Your task to perform on an android device: turn off improve location accuracy Image 0: 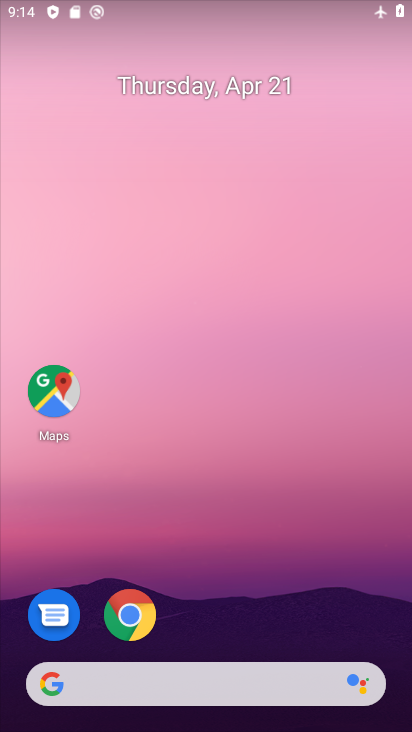
Step 0: drag from (207, 717) to (189, 152)
Your task to perform on an android device: turn off improve location accuracy Image 1: 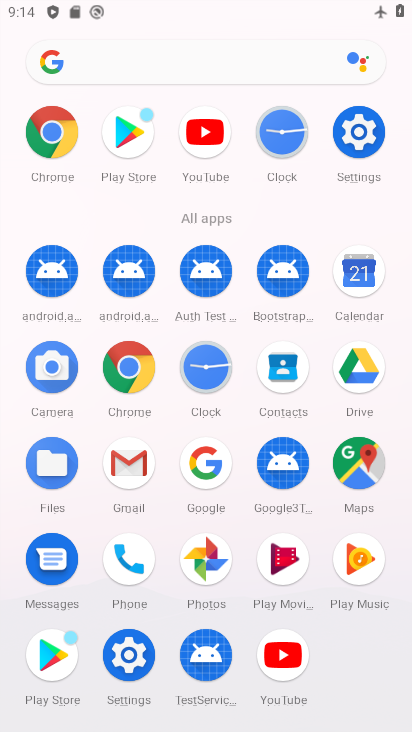
Step 1: click (356, 133)
Your task to perform on an android device: turn off improve location accuracy Image 2: 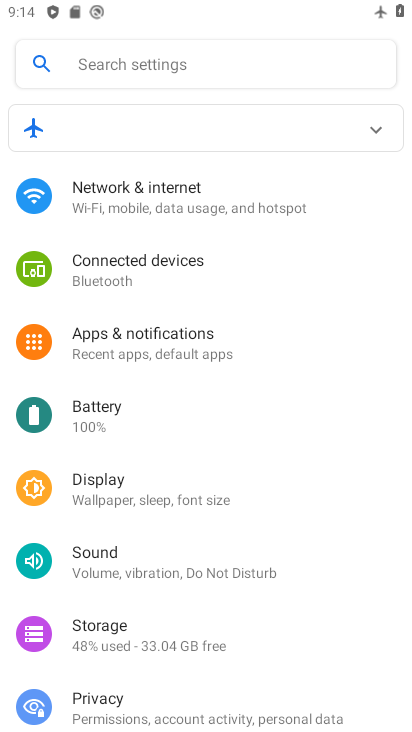
Step 2: drag from (152, 680) to (154, 257)
Your task to perform on an android device: turn off improve location accuracy Image 3: 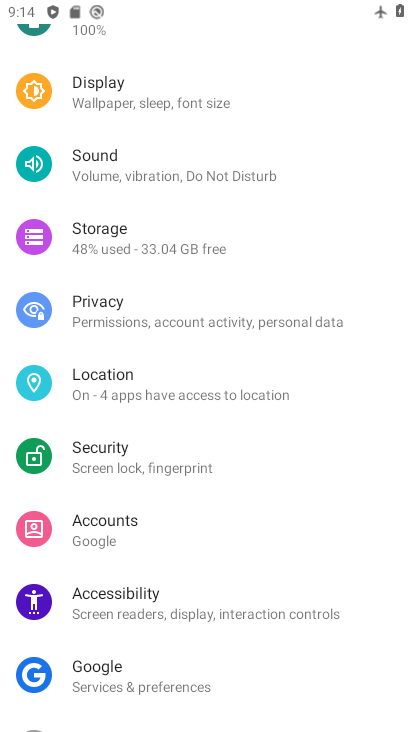
Step 3: click (103, 388)
Your task to perform on an android device: turn off improve location accuracy Image 4: 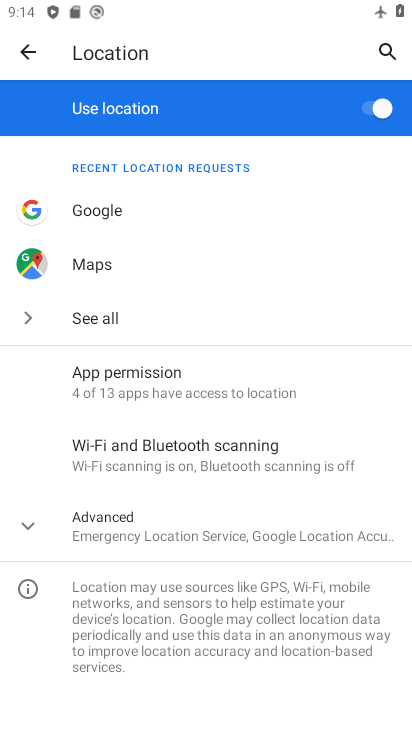
Step 4: click (106, 521)
Your task to perform on an android device: turn off improve location accuracy Image 5: 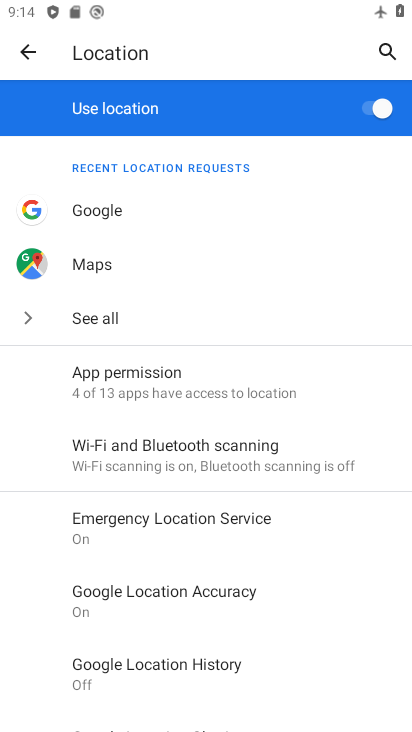
Step 5: drag from (164, 646) to (180, 429)
Your task to perform on an android device: turn off improve location accuracy Image 6: 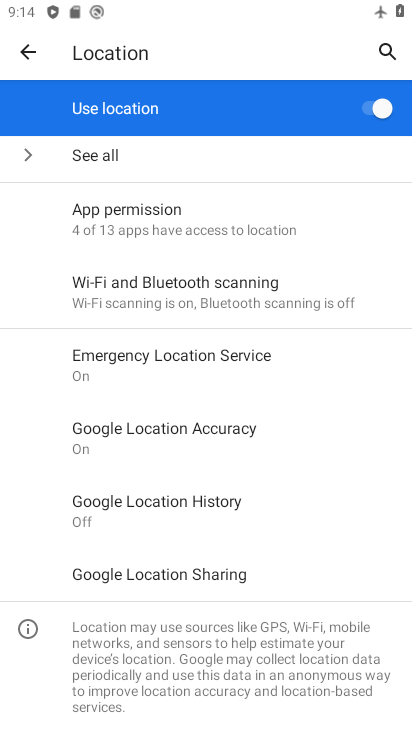
Step 6: click (131, 431)
Your task to perform on an android device: turn off improve location accuracy Image 7: 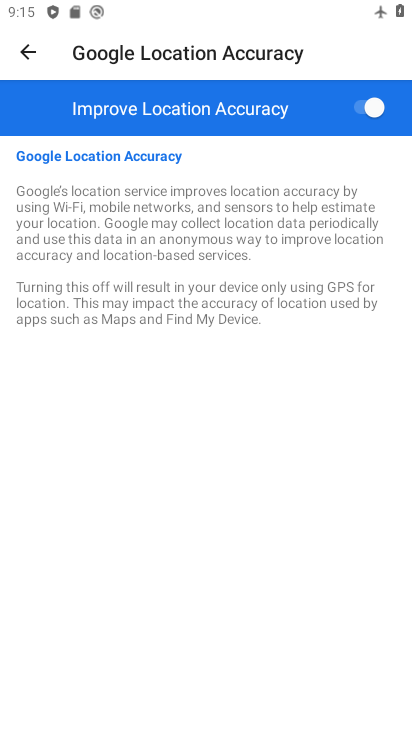
Step 7: click (363, 108)
Your task to perform on an android device: turn off improve location accuracy Image 8: 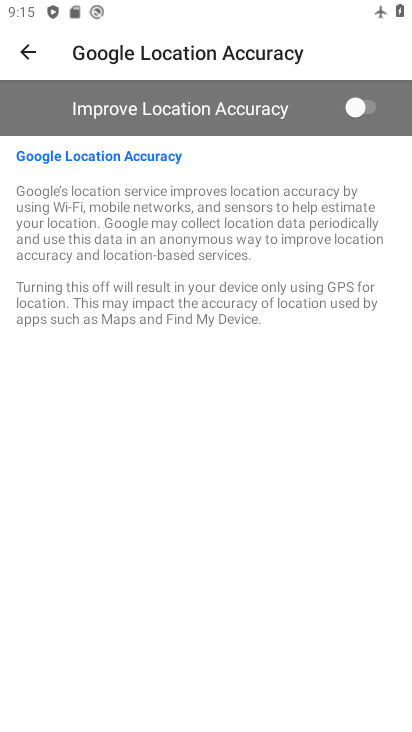
Step 8: task complete